Your task to perform on an android device: change the clock display to analog Image 0: 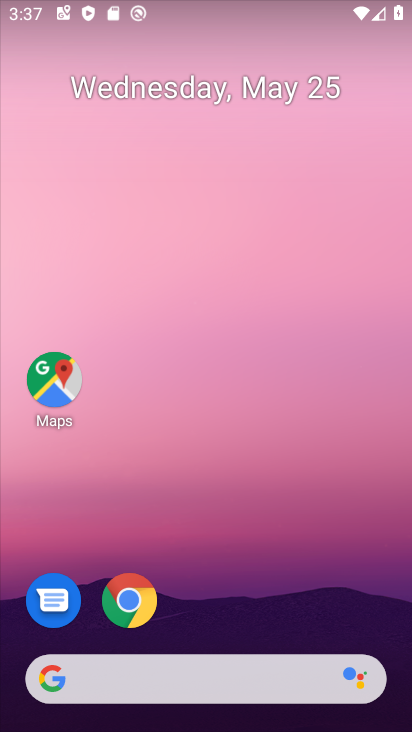
Step 0: press home button
Your task to perform on an android device: change the clock display to analog Image 1: 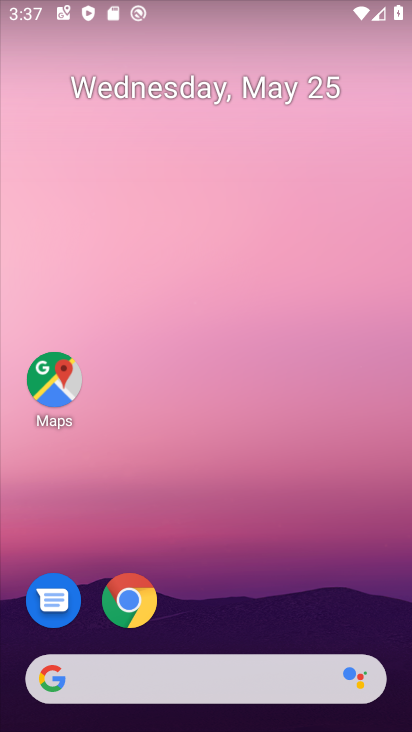
Step 1: drag from (90, 502) to (316, 192)
Your task to perform on an android device: change the clock display to analog Image 2: 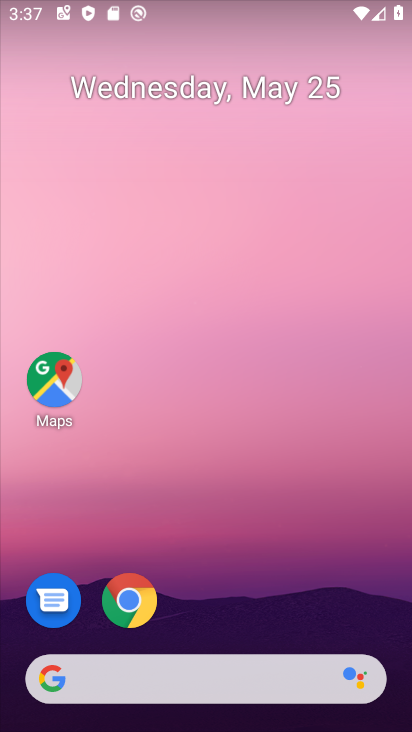
Step 2: drag from (99, 484) to (338, 46)
Your task to perform on an android device: change the clock display to analog Image 3: 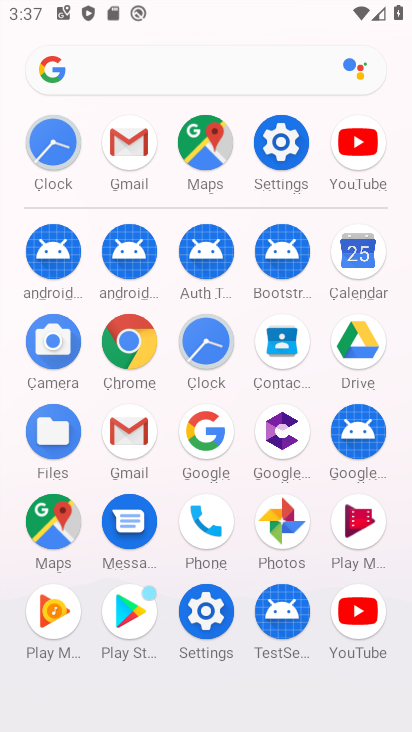
Step 3: click (198, 344)
Your task to perform on an android device: change the clock display to analog Image 4: 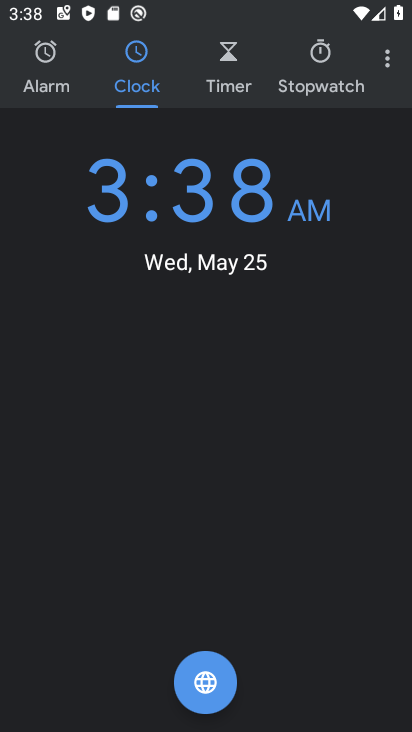
Step 4: click (385, 48)
Your task to perform on an android device: change the clock display to analog Image 5: 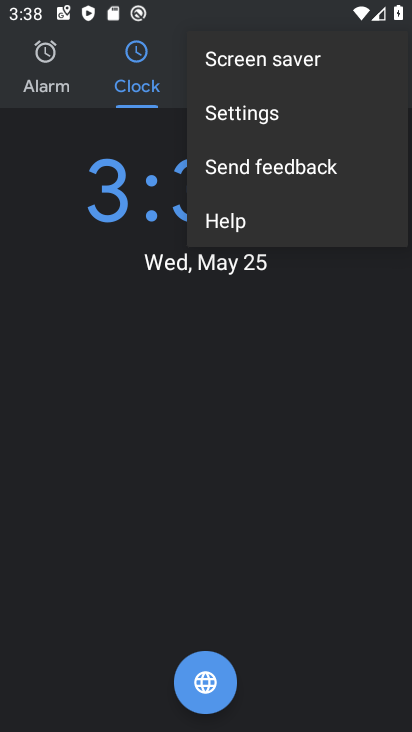
Step 5: click (288, 116)
Your task to perform on an android device: change the clock display to analog Image 6: 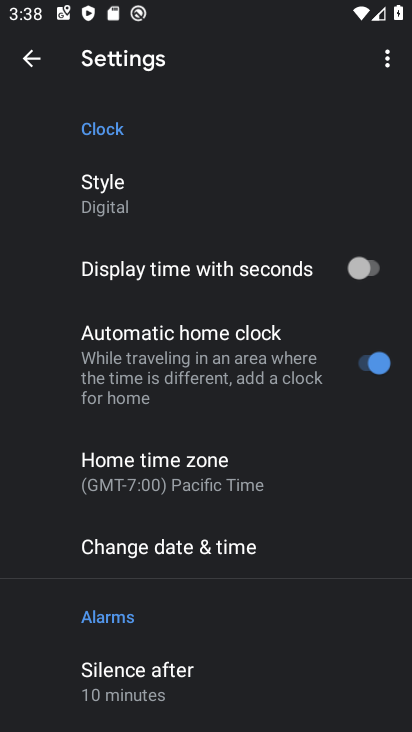
Step 6: click (159, 197)
Your task to perform on an android device: change the clock display to analog Image 7: 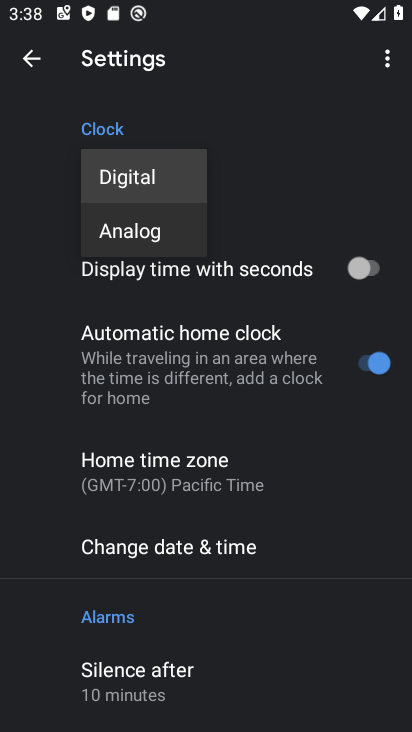
Step 7: click (142, 235)
Your task to perform on an android device: change the clock display to analog Image 8: 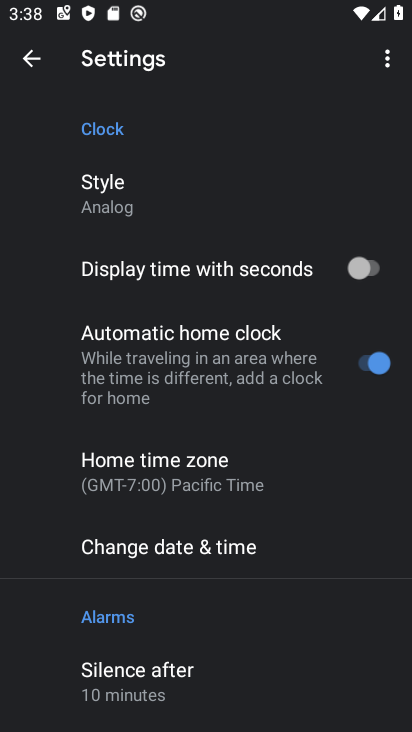
Step 8: task complete